Your task to perform on an android device: turn notification dots on Image 0: 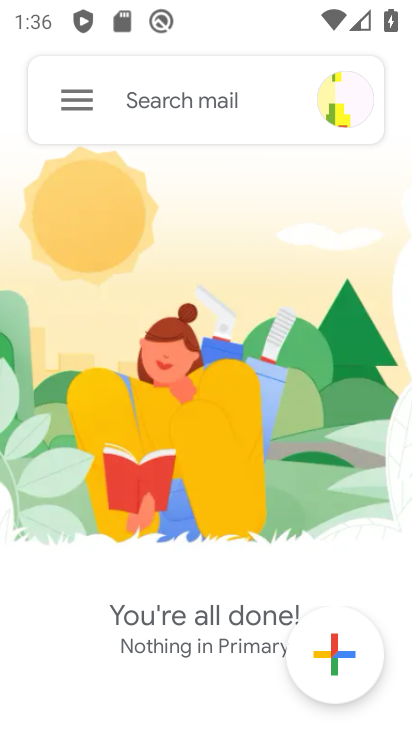
Step 0: press home button
Your task to perform on an android device: turn notification dots on Image 1: 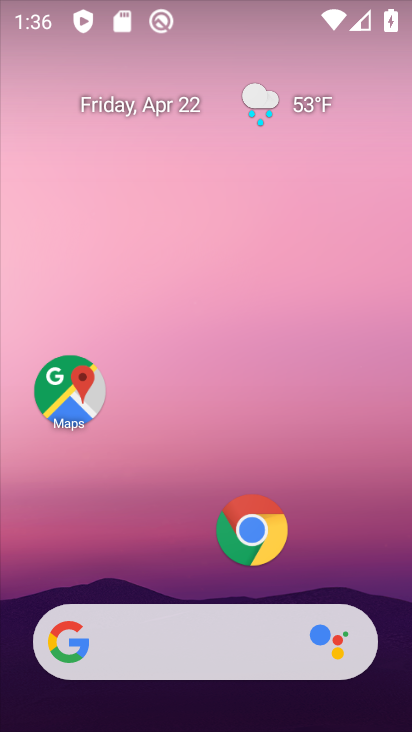
Step 1: drag from (191, 620) to (237, 146)
Your task to perform on an android device: turn notification dots on Image 2: 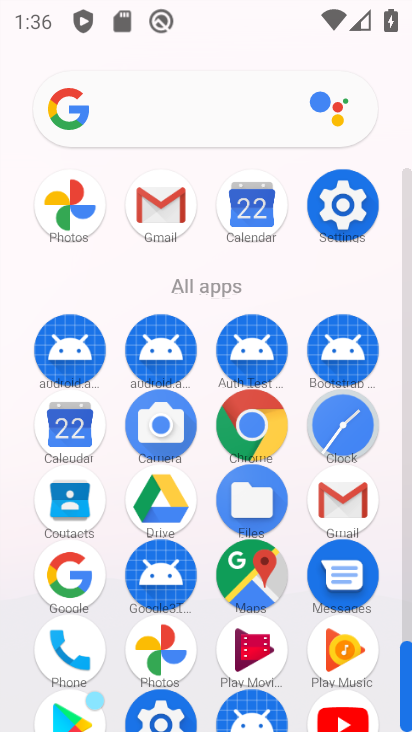
Step 2: click (336, 242)
Your task to perform on an android device: turn notification dots on Image 3: 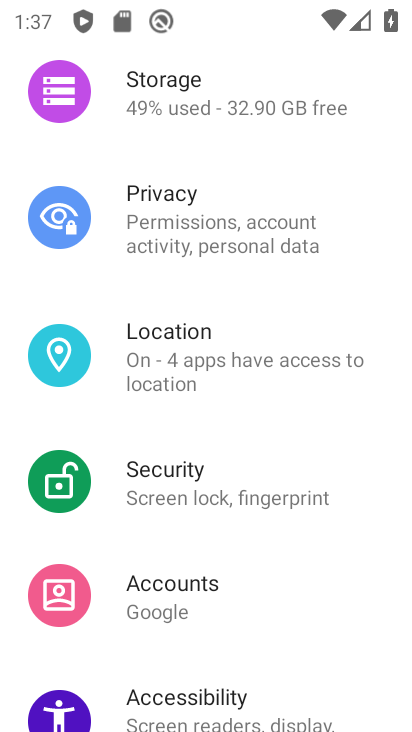
Step 3: drag from (198, 243) to (161, 647)
Your task to perform on an android device: turn notification dots on Image 4: 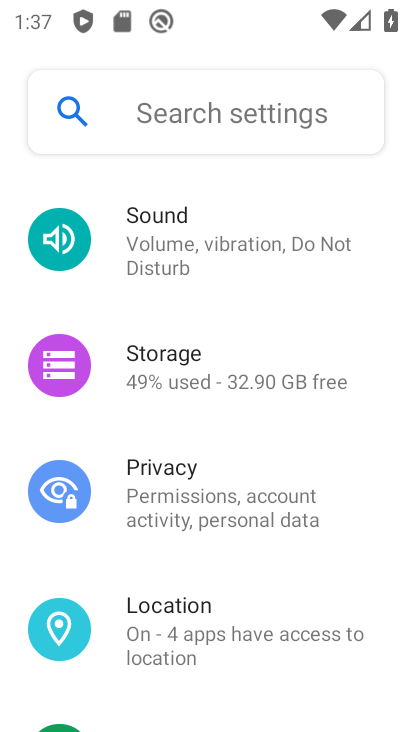
Step 4: drag from (232, 262) to (246, 665)
Your task to perform on an android device: turn notification dots on Image 5: 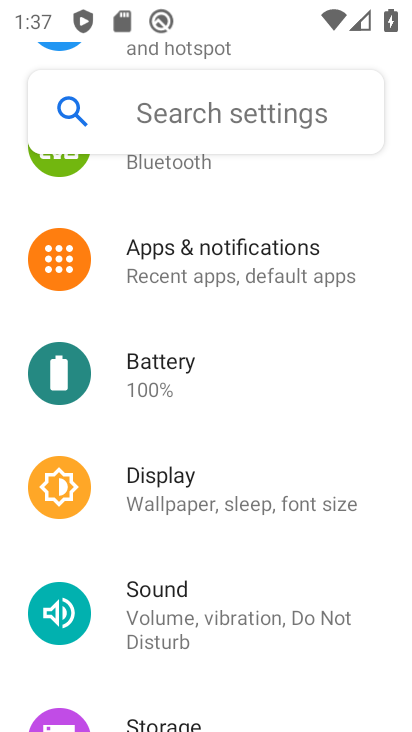
Step 5: click (224, 268)
Your task to perform on an android device: turn notification dots on Image 6: 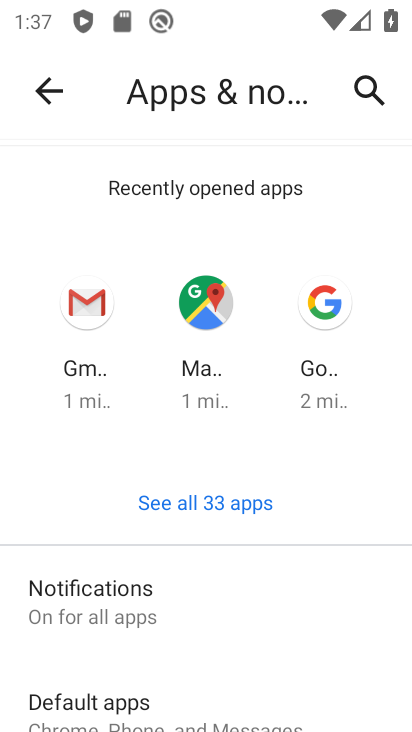
Step 6: click (242, 571)
Your task to perform on an android device: turn notification dots on Image 7: 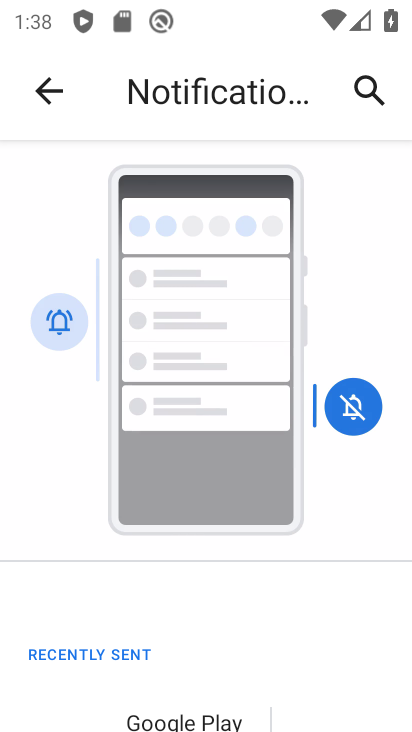
Step 7: drag from (242, 571) to (265, 49)
Your task to perform on an android device: turn notification dots on Image 8: 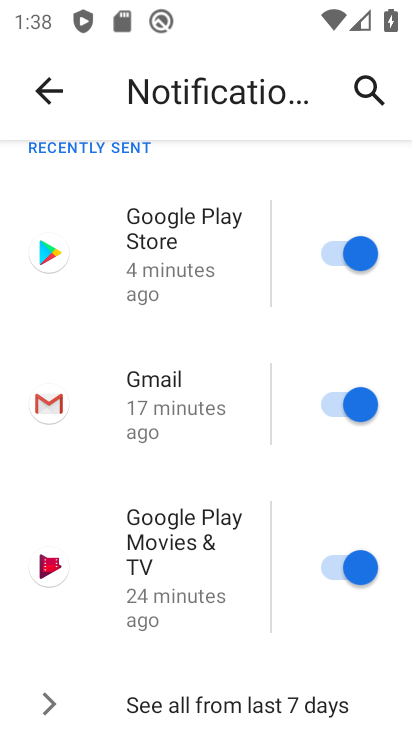
Step 8: drag from (230, 623) to (203, 44)
Your task to perform on an android device: turn notification dots on Image 9: 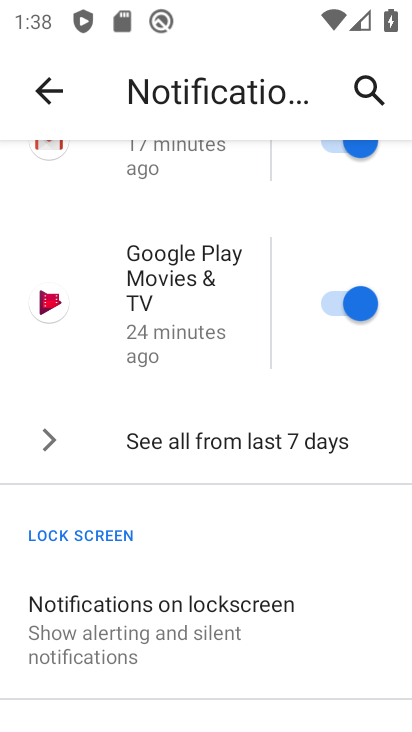
Step 9: drag from (150, 607) to (166, 170)
Your task to perform on an android device: turn notification dots on Image 10: 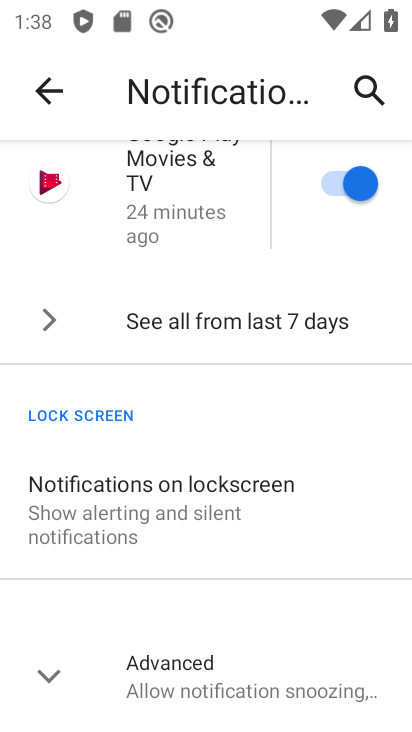
Step 10: click (178, 660)
Your task to perform on an android device: turn notification dots on Image 11: 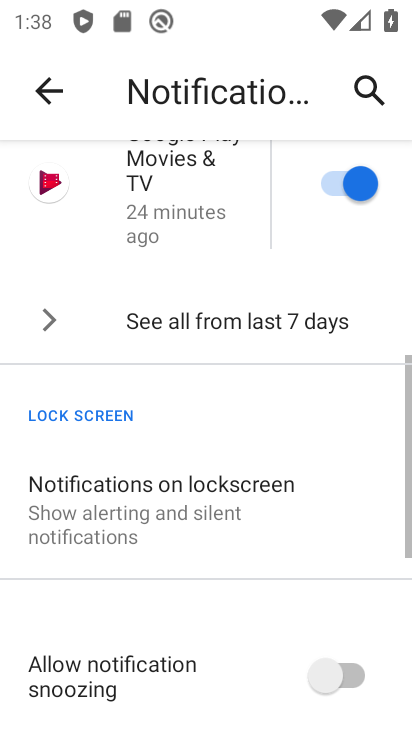
Step 11: task complete